Your task to perform on an android device: Go to privacy settings Image 0: 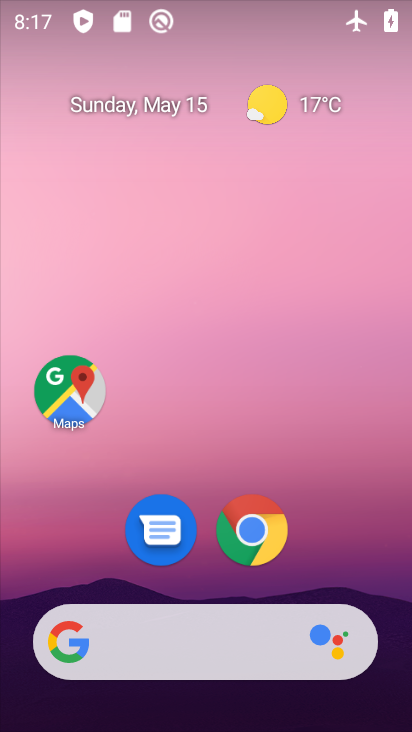
Step 0: drag from (233, 721) to (198, 124)
Your task to perform on an android device: Go to privacy settings Image 1: 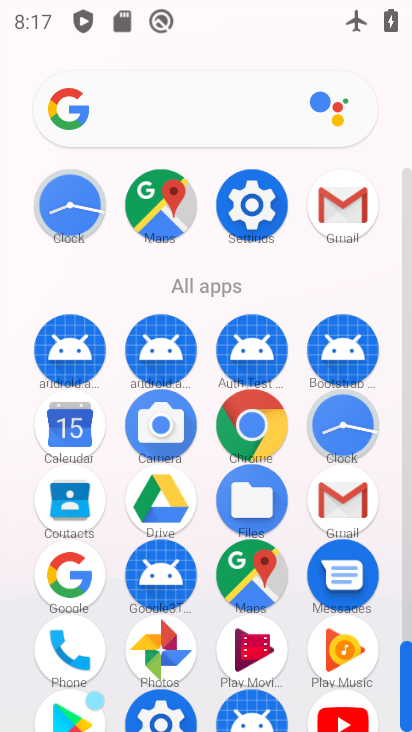
Step 1: click (251, 209)
Your task to perform on an android device: Go to privacy settings Image 2: 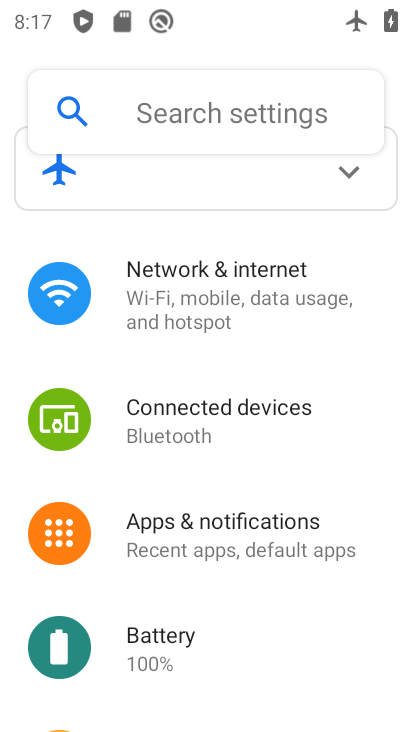
Step 2: drag from (228, 636) to (232, 310)
Your task to perform on an android device: Go to privacy settings Image 3: 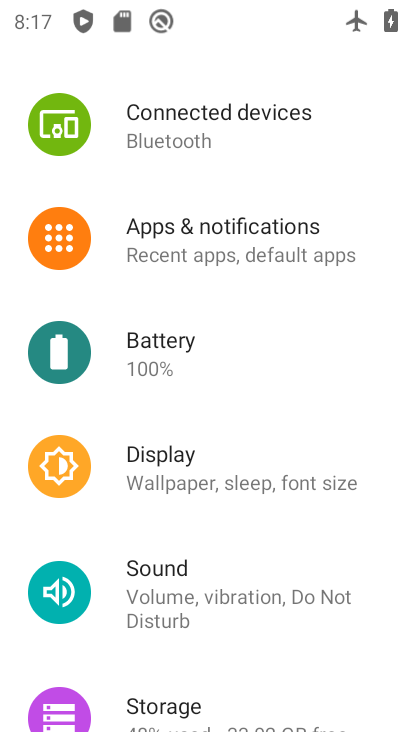
Step 3: drag from (194, 667) to (217, 282)
Your task to perform on an android device: Go to privacy settings Image 4: 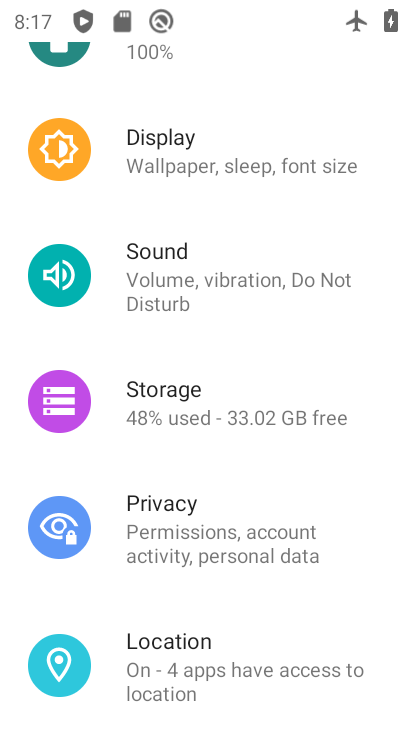
Step 4: click (184, 532)
Your task to perform on an android device: Go to privacy settings Image 5: 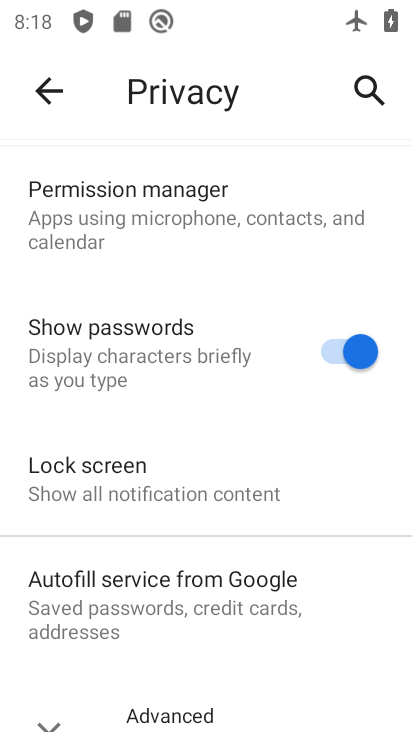
Step 5: task complete